Your task to perform on an android device: open a bookmark in the chrome app Image 0: 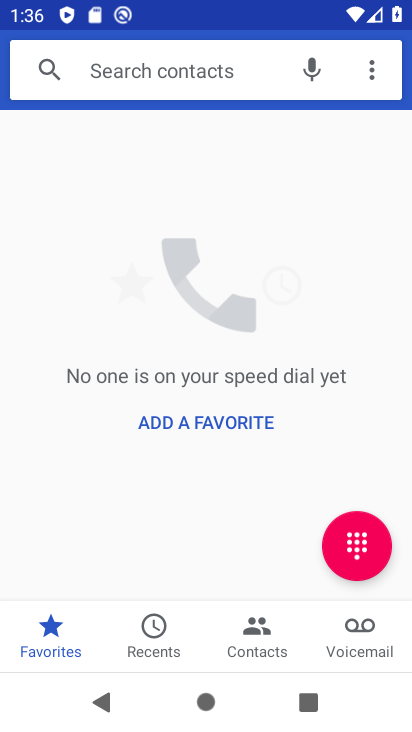
Step 0: press back button
Your task to perform on an android device: open a bookmark in the chrome app Image 1: 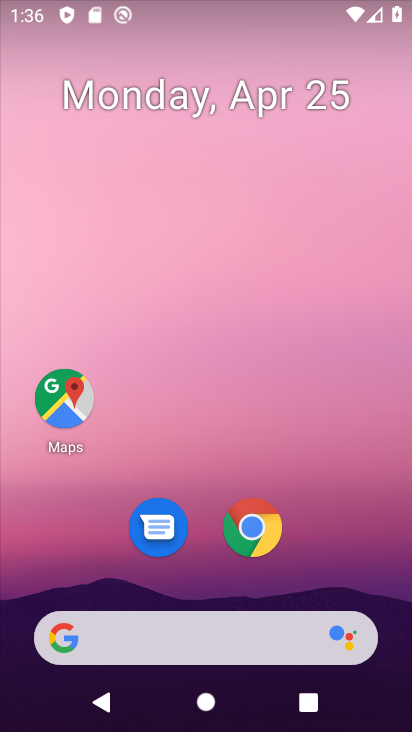
Step 1: drag from (394, 640) to (295, 123)
Your task to perform on an android device: open a bookmark in the chrome app Image 2: 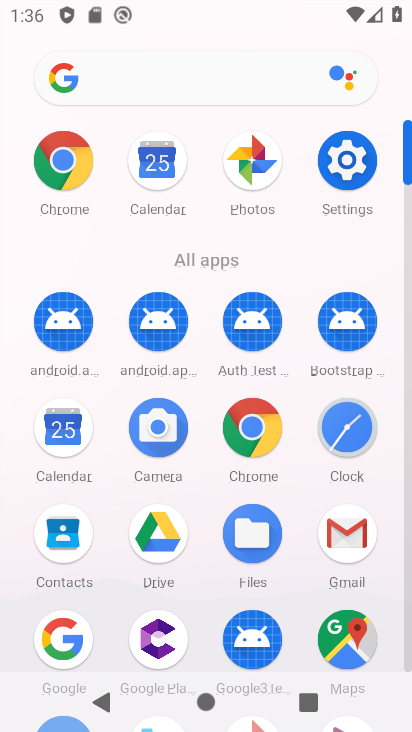
Step 2: click (239, 426)
Your task to perform on an android device: open a bookmark in the chrome app Image 3: 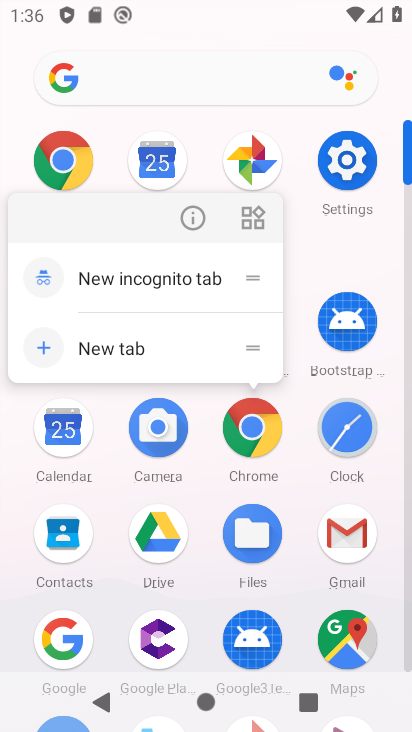
Step 3: click (239, 426)
Your task to perform on an android device: open a bookmark in the chrome app Image 4: 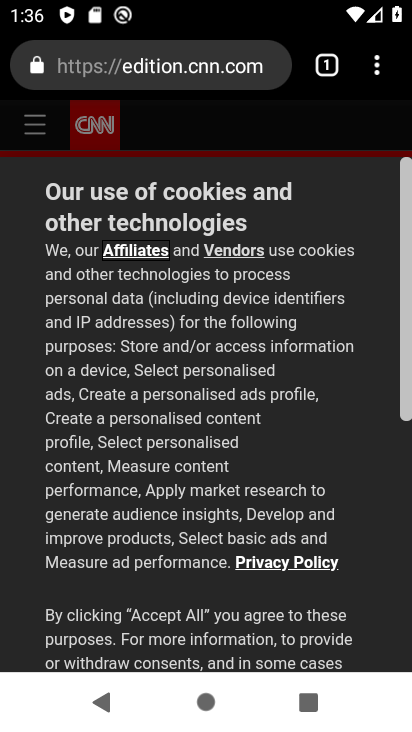
Step 4: press back button
Your task to perform on an android device: open a bookmark in the chrome app Image 5: 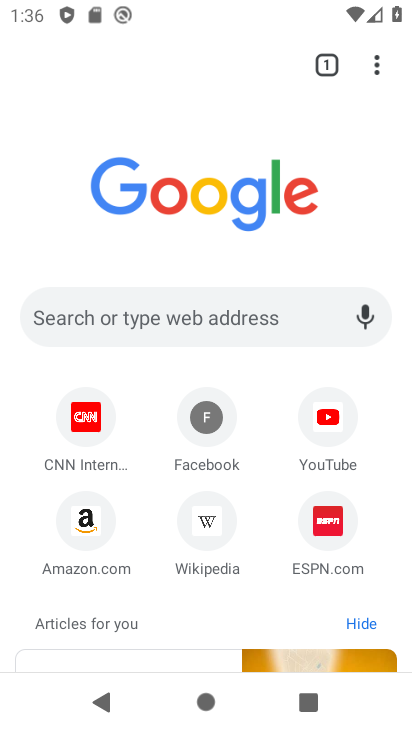
Step 5: click (376, 63)
Your task to perform on an android device: open a bookmark in the chrome app Image 6: 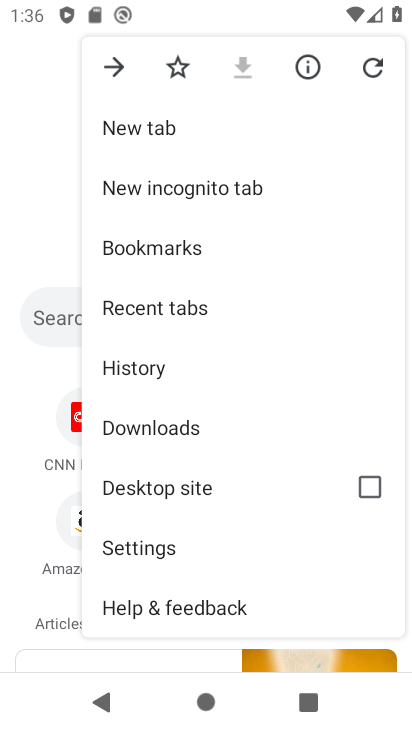
Step 6: click (244, 236)
Your task to perform on an android device: open a bookmark in the chrome app Image 7: 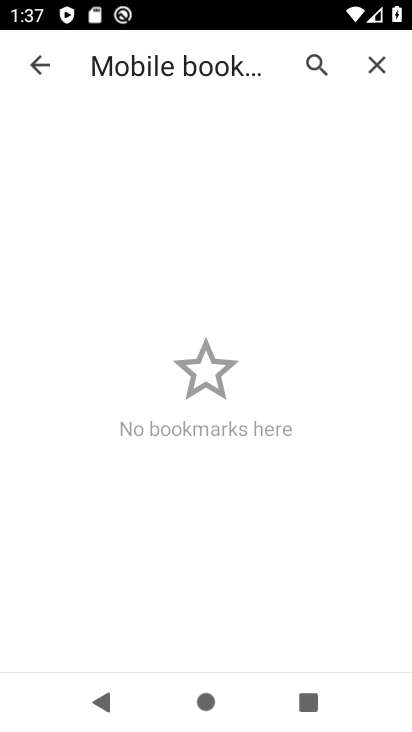
Step 7: task complete